Your task to perform on an android device: create a new album in the google photos Image 0: 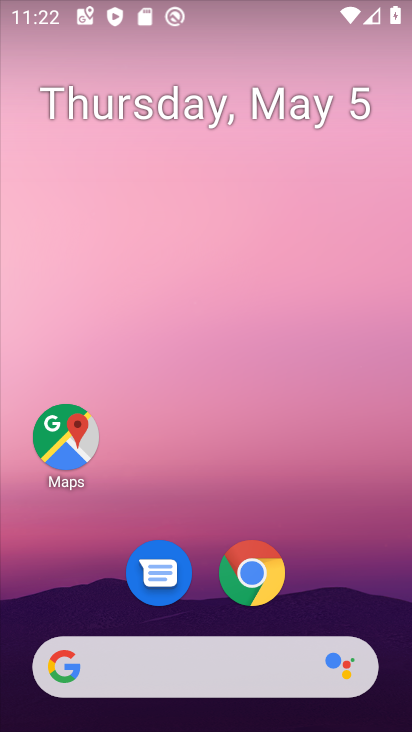
Step 0: drag from (319, 597) to (340, 289)
Your task to perform on an android device: create a new album in the google photos Image 1: 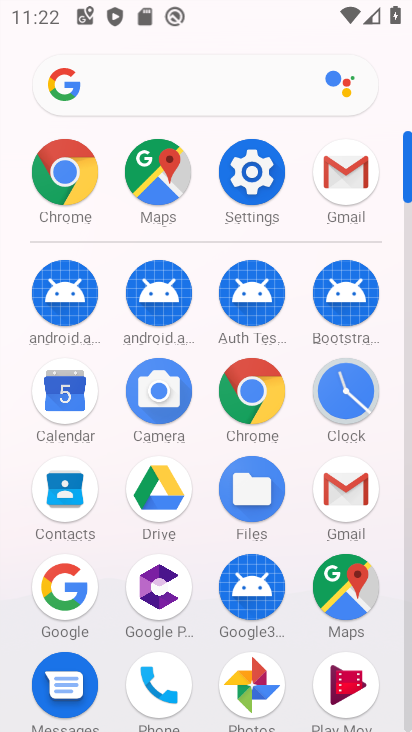
Step 1: click (245, 682)
Your task to perform on an android device: create a new album in the google photos Image 2: 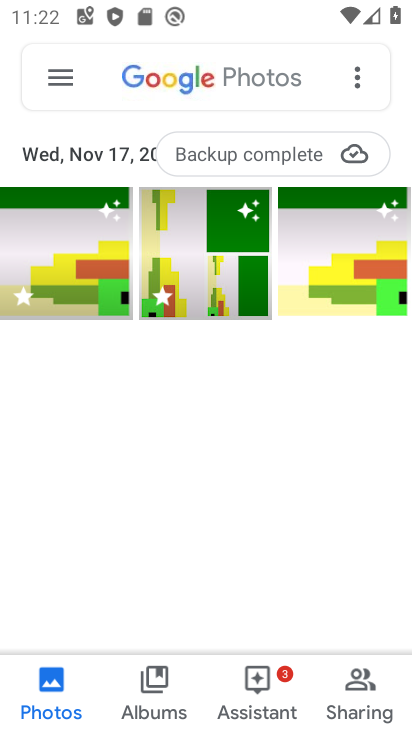
Step 2: click (38, 242)
Your task to perform on an android device: create a new album in the google photos Image 3: 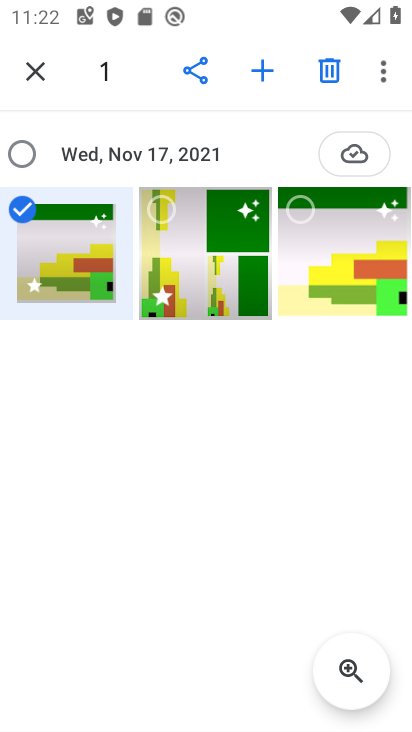
Step 3: click (259, 67)
Your task to perform on an android device: create a new album in the google photos Image 4: 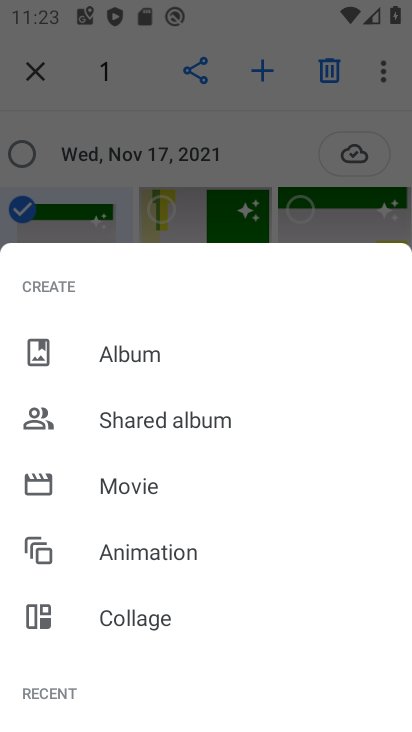
Step 4: click (121, 350)
Your task to perform on an android device: create a new album in the google photos Image 5: 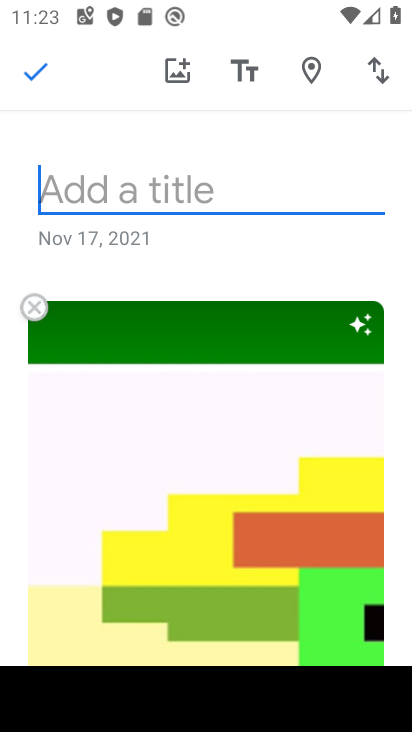
Step 5: click (213, 192)
Your task to perform on an android device: create a new album in the google photos Image 6: 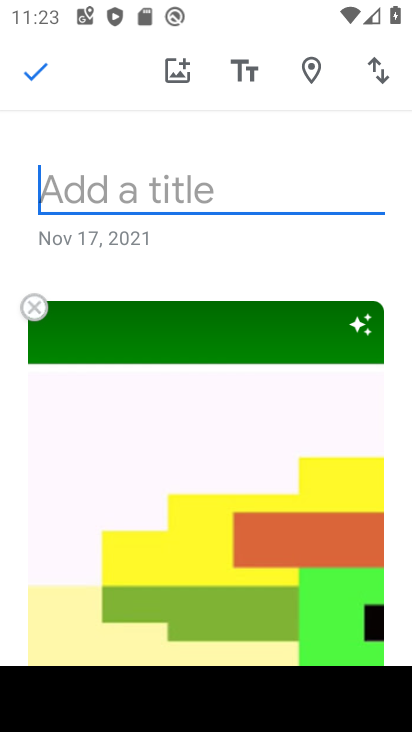
Step 6: type "kjkjkjkjkjkjkjj"
Your task to perform on an android device: create a new album in the google photos Image 7: 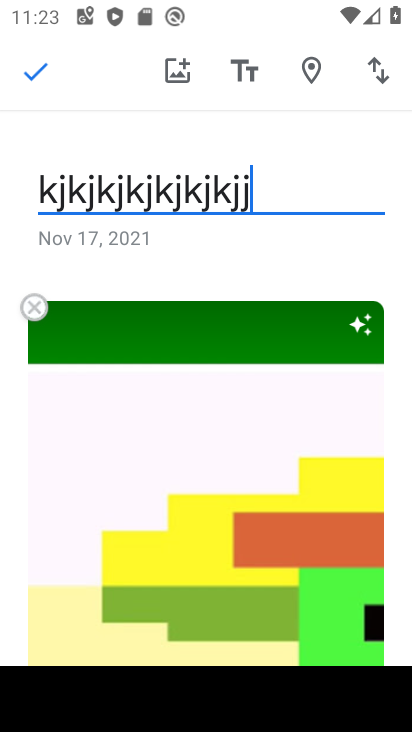
Step 7: click (35, 78)
Your task to perform on an android device: create a new album in the google photos Image 8: 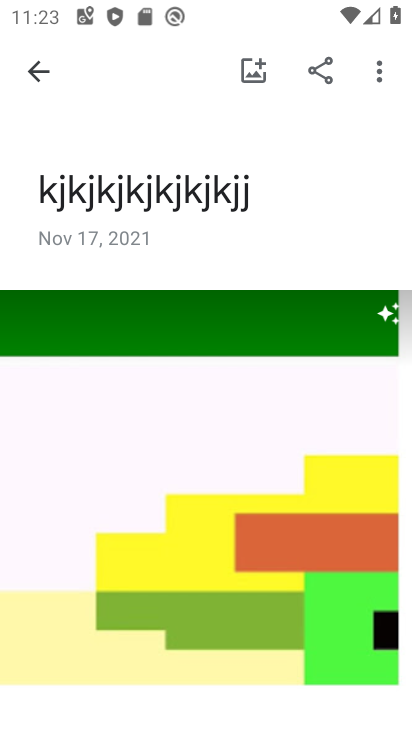
Step 8: task complete